Your task to perform on an android device: Open Google Image 0: 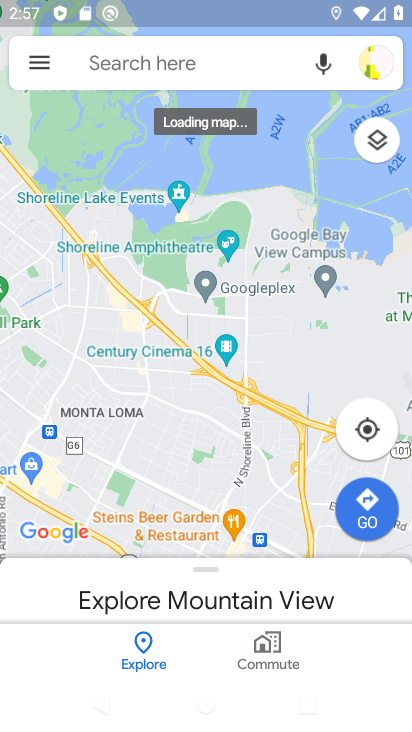
Step 0: press home button
Your task to perform on an android device: Open Google Image 1: 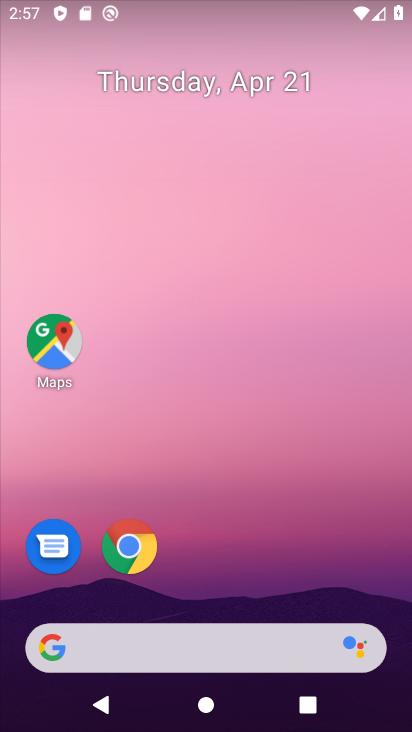
Step 1: click (122, 649)
Your task to perform on an android device: Open Google Image 2: 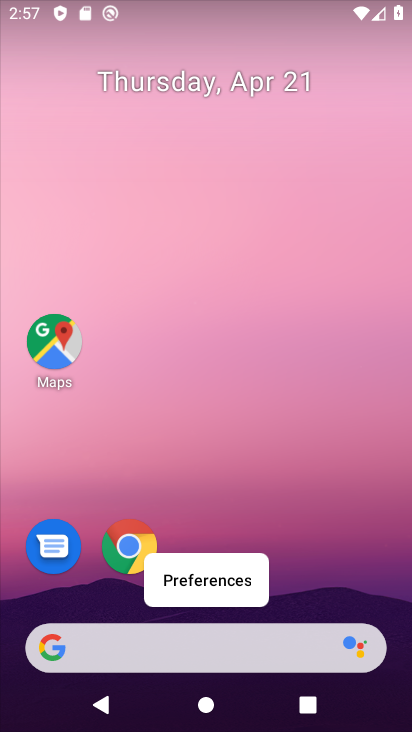
Step 2: click (122, 649)
Your task to perform on an android device: Open Google Image 3: 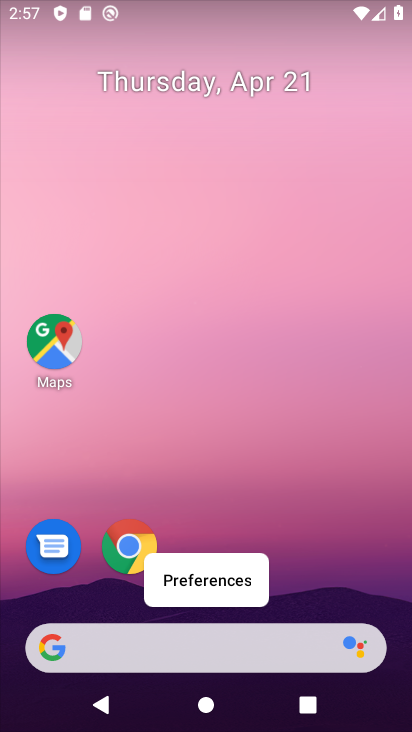
Step 3: click (116, 653)
Your task to perform on an android device: Open Google Image 4: 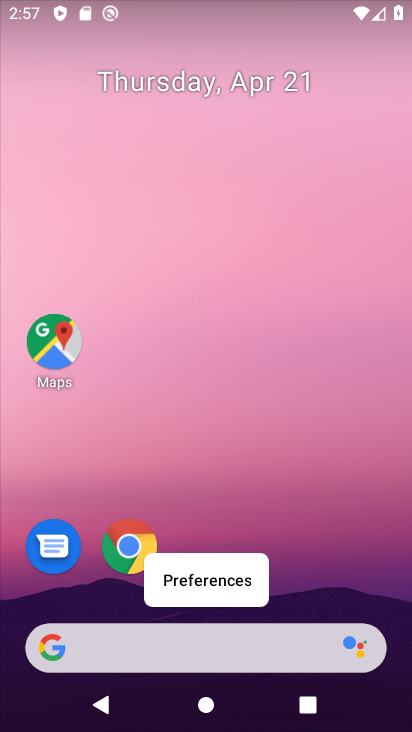
Step 4: click (116, 653)
Your task to perform on an android device: Open Google Image 5: 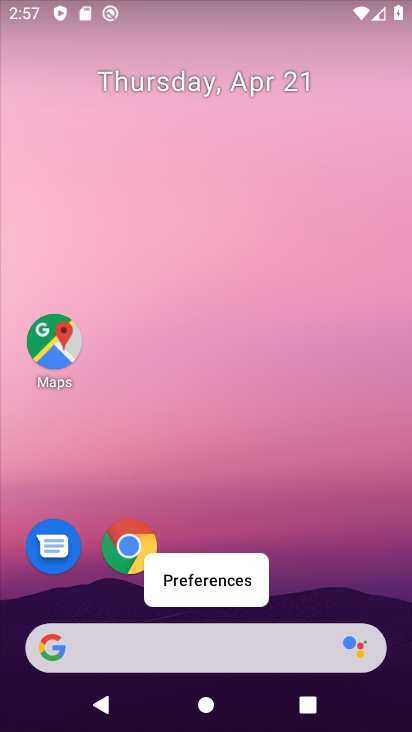
Step 5: click (110, 655)
Your task to perform on an android device: Open Google Image 6: 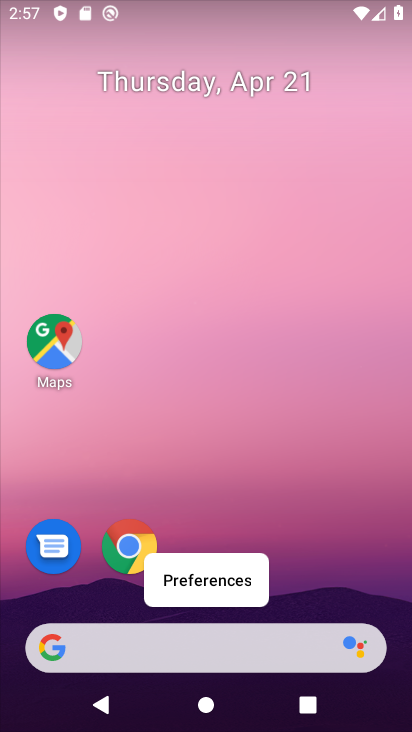
Step 6: click (93, 655)
Your task to perform on an android device: Open Google Image 7: 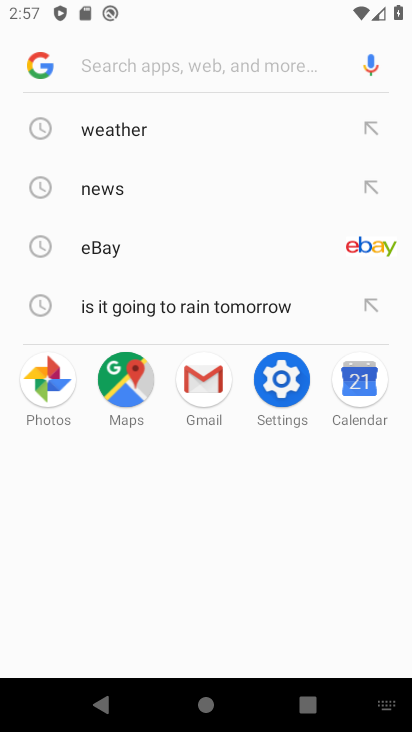
Step 7: task complete